Your task to perform on an android device: snooze an email in the gmail app Image 0: 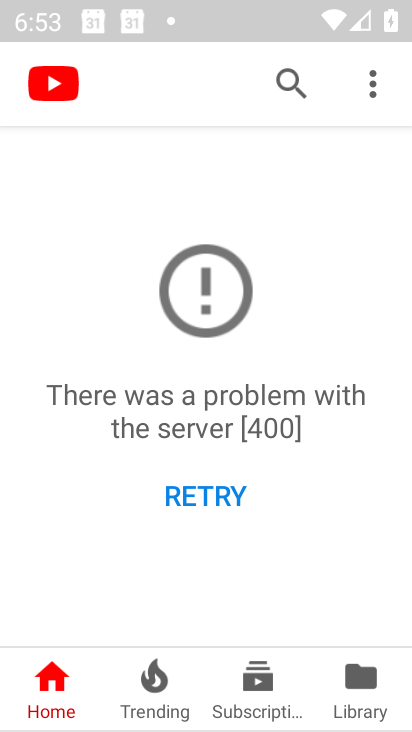
Step 0: press home button
Your task to perform on an android device: snooze an email in the gmail app Image 1: 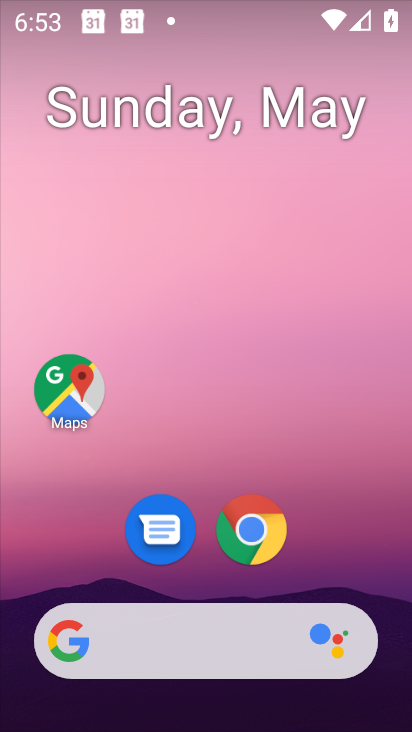
Step 1: drag from (226, 581) to (226, 277)
Your task to perform on an android device: snooze an email in the gmail app Image 2: 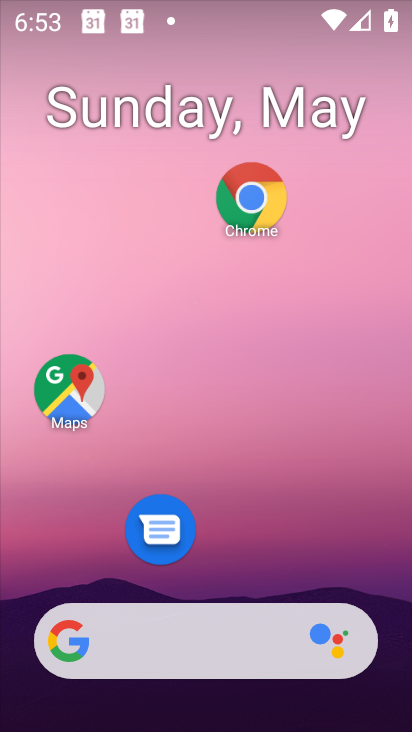
Step 2: drag from (211, 571) to (258, 200)
Your task to perform on an android device: snooze an email in the gmail app Image 3: 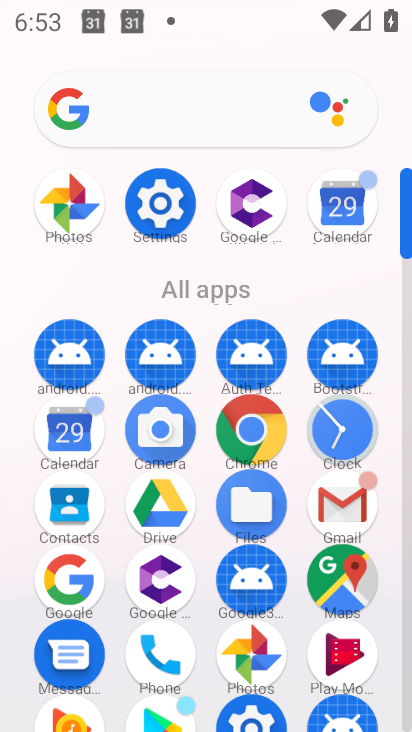
Step 3: click (349, 509)
Your task to perform on an android device: snooze an email in the gmail app Image 4: 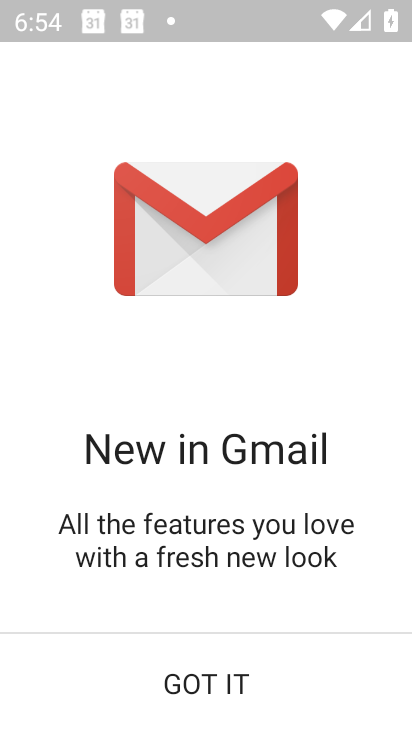
Step 4: click (229, 694)
Your task to perform on an android device: snooze an email in the gmail app Image 5: 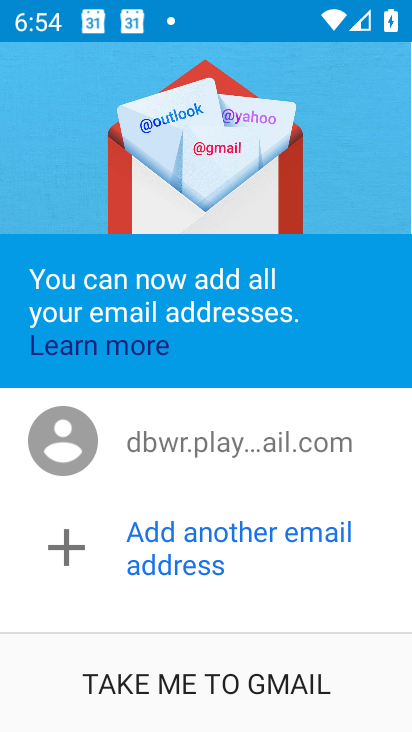
Step 5: click (220, 667)
Your task to perform on an android device: snooze an email in the gmail app Image 6: 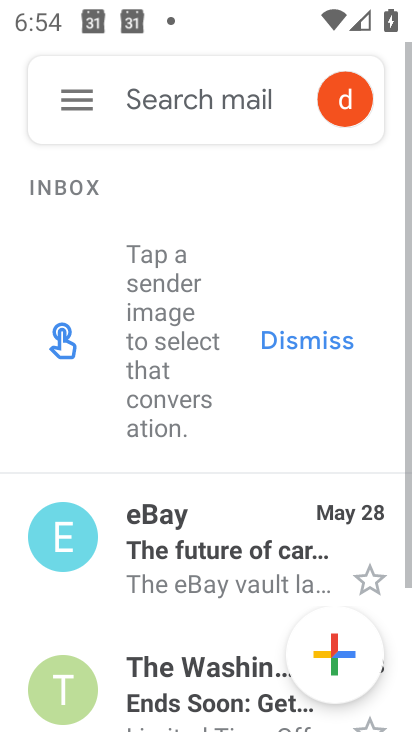
Step 6: click (181, 543)
Your task to perform on an android device: snooze an email in the gmail app Image 7: 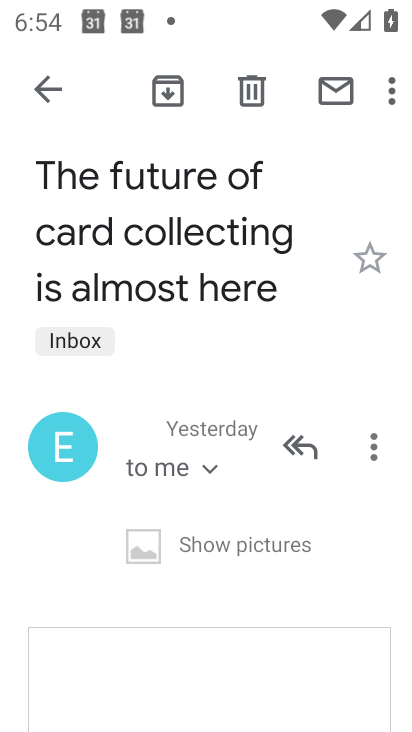
Step 7: click (395, 92)
Your task to perform on an android device: snooze an email in the gmail app Image 8: 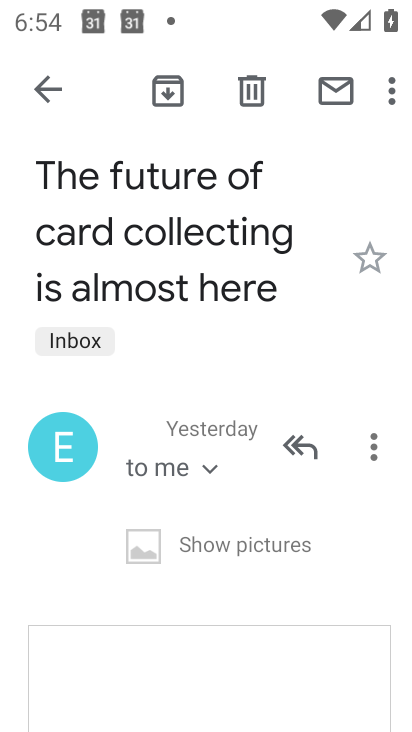
Step 8: click (394, 91)
Your task to perform on an android device: snooze an email in the gmail app Image 9: 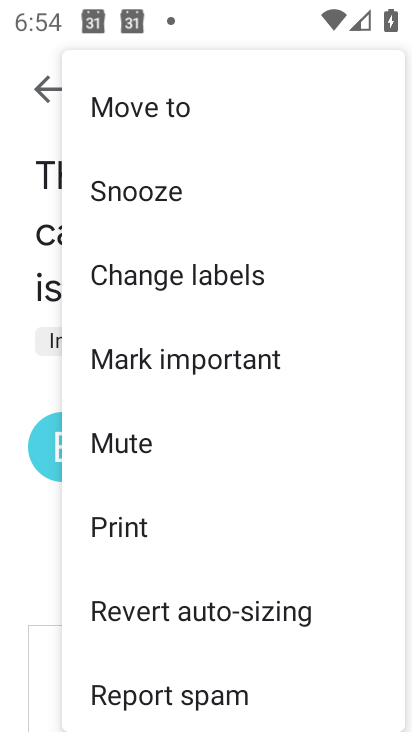
Step 9: click (177, 190)
Your task to perform on an android device: snooze an email in the gmail app Image 10: 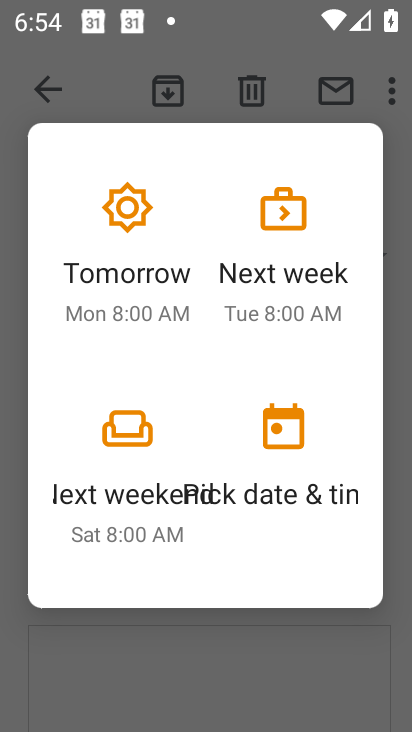
Step 10: click (270, 278)
Your task to perform on an android device: snooze an email in the gmail app Image 11: 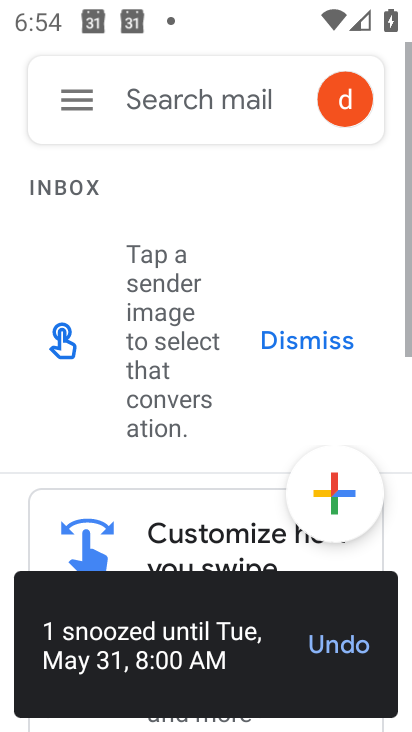
Step 11: task complete